Your task to perform on an android device: What is the recent news? Image 0: 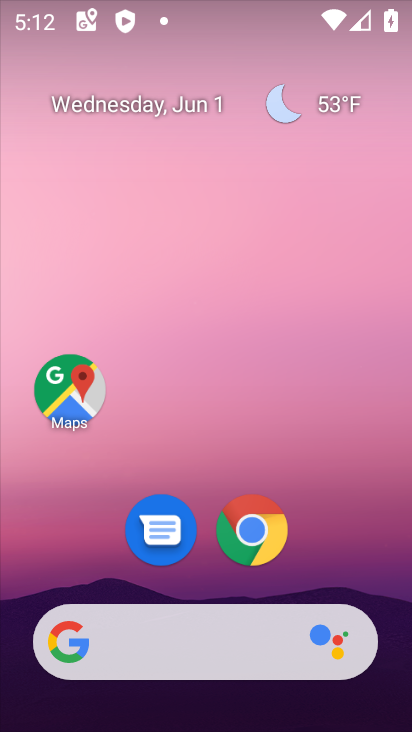
Step 0: click (221, 652)
Your task to perform on an android device: What is the recent news? Image 1: 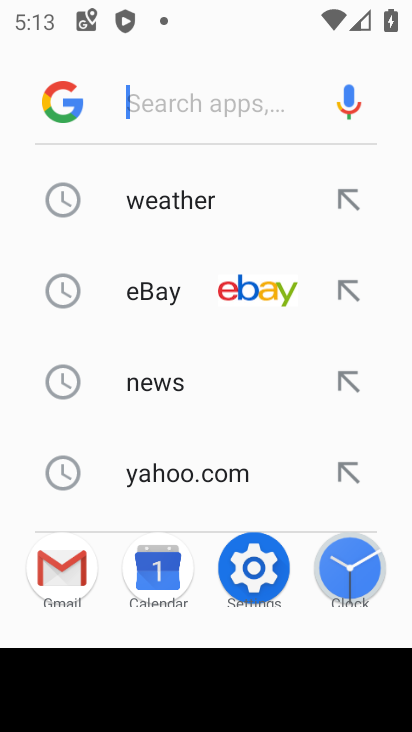
Step 1: type "recent news"
Your task to perform on an android device: What is the recent news? Image 2: 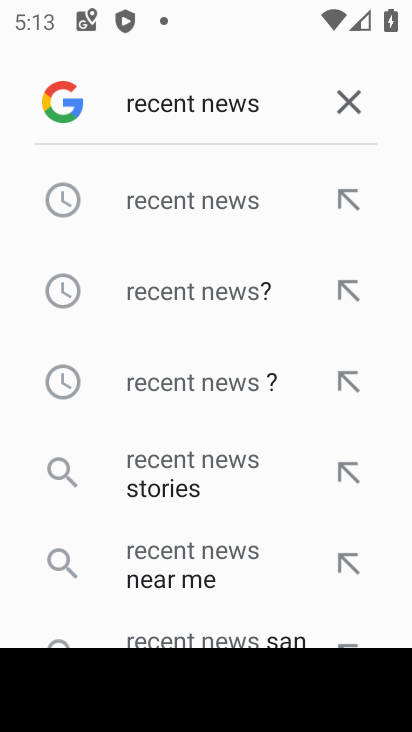
Step 2: click (239, 208)
Your task to perform on an android device: What is the recent news? Image 3: 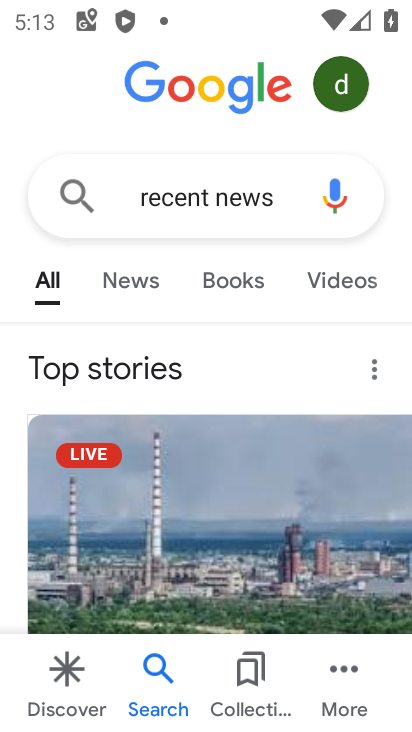
Step 3: task complete